Your task to perform on an android device: Search for the best selling jewelry on Etsy. Image 0: 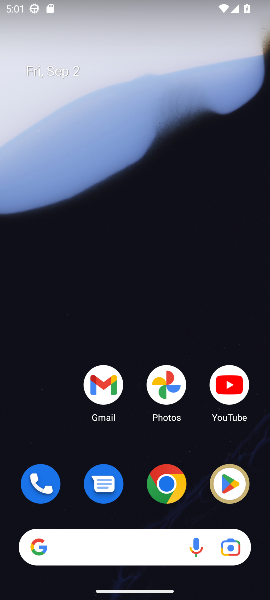
Step 0: click (166, 482)
Your task to perform on an android device: Search for the best selling jewelry on Etsy. Image 1: 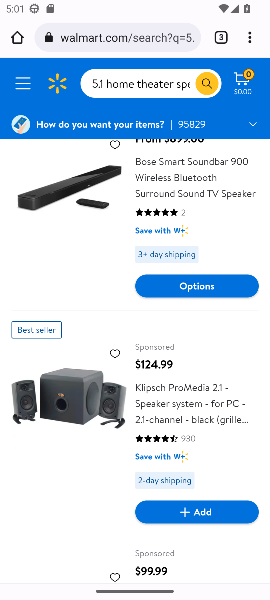
Step 1: click (156, 37)
Your task to perform on an android device: Search for the best selling jewelry on Etsy. Image 2: 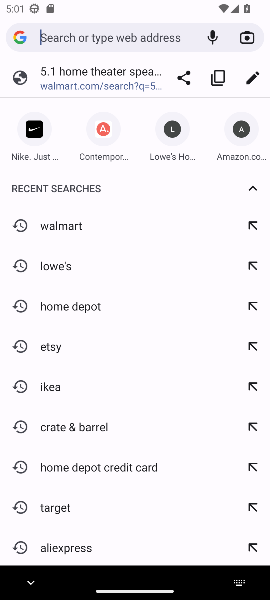
Step 2: type "Etsy"
Your task to perform on an android device: Search for the best selling jewelry on Etsy. Image 3: 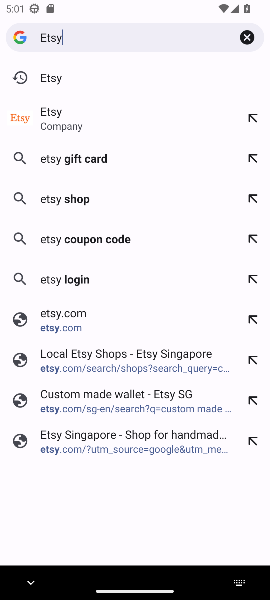
Step 3: click (63, 83)
Your task to perform on an android device: Search for the best selling jewelry on Etsy. Image 4: 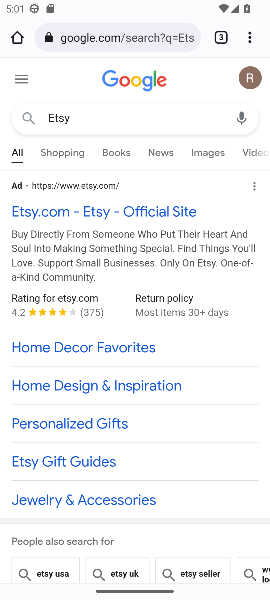
Step 4: click (98, 213)
Your task to perform on an android device: Search for the best selling jewelry on Etsy. Image 5: 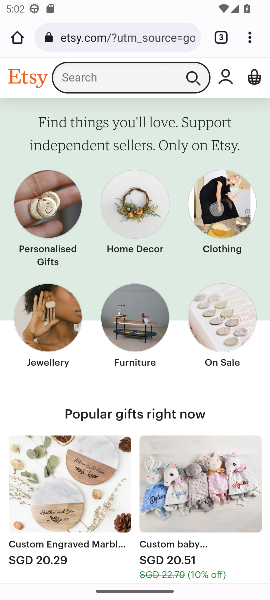
Step 5: click (118, 73)
Your task to perform on an android device: Search for the best selling jewelry on Etsy. Image 6: 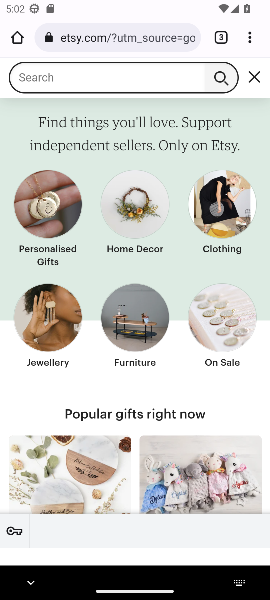
Step 6: type "jewelry"
Your task to perform on an android device: Search for the best selling jewelry on Etsy. Image 7: 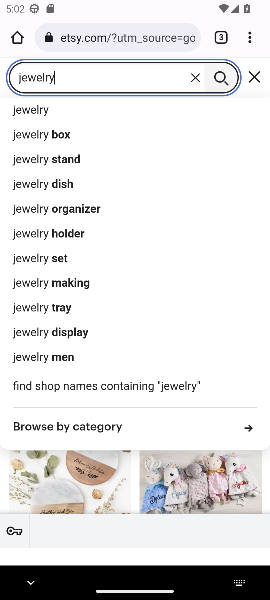
Step 7: click (21, 115)
Your task to perform on an android device: Search for the best selling jewelry on Etsy. Image 8: 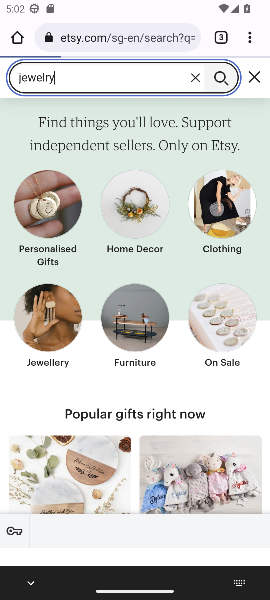
Step 8: drag from (106, 489) to (159, 43)
Your task to perform on an android device: Search for the best selling jewelry on Etsy. Image 9: 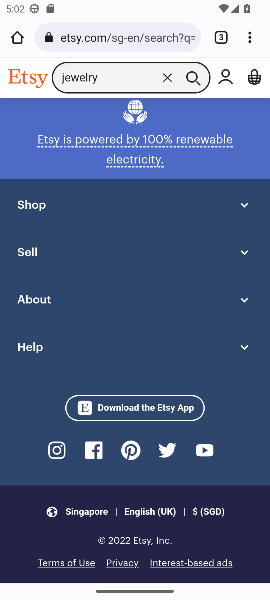
Step 9: drag from (152, 207) to (106, 599)
Your task to perform on an android device: Search for the best selling jewelry on Etsy. Image 10: 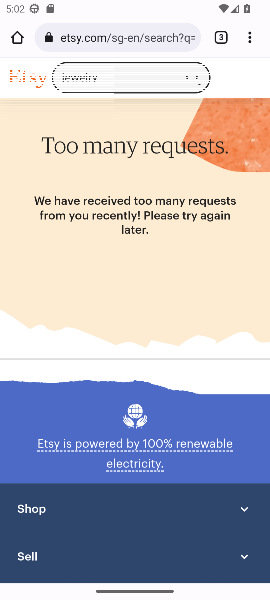
Step 10: drag from (174, 331) to (147, 438)
Your task to perform on an android device: Search for the best selling jewelry on Etsy. Image 11: 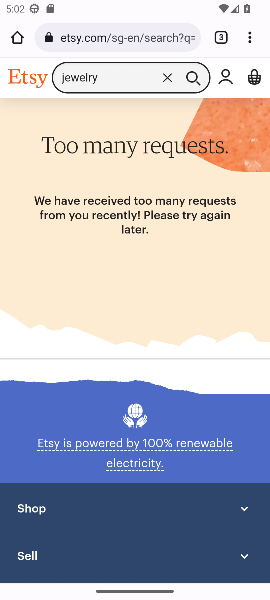
Step 11: click (103, 76)
Your task to perform on an android device: Search for the best selling jewelry on Etsy. Image 12: 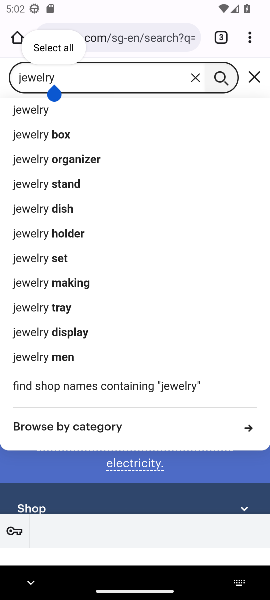
Step 12: click (23, 114)
Your task to perform on an android device: Search for the best selling jewelry on Etsy. Image 13: 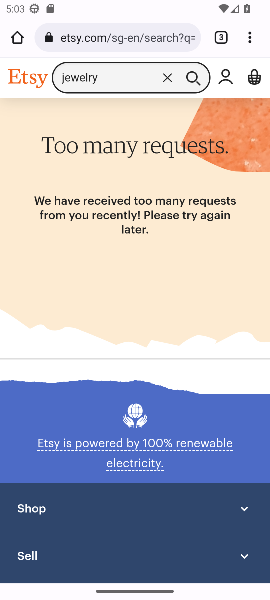
Step 13: task complete